Your task to perform on an android device: turn on the 24-hour format for clock Image 0: 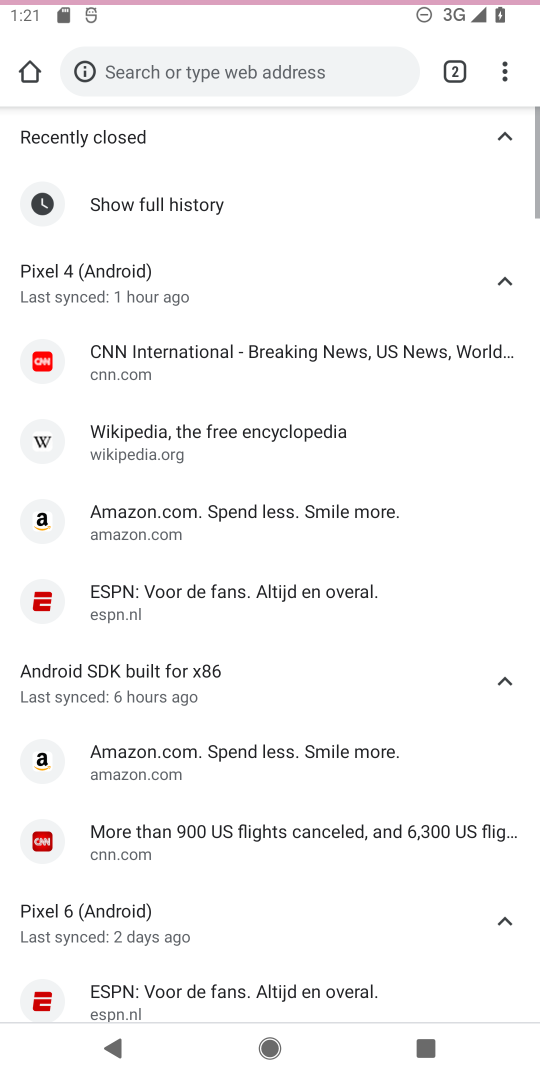
Step 0: press home button
Your task to perform on an android device: turn on the 24-hour format for clock Image 1: 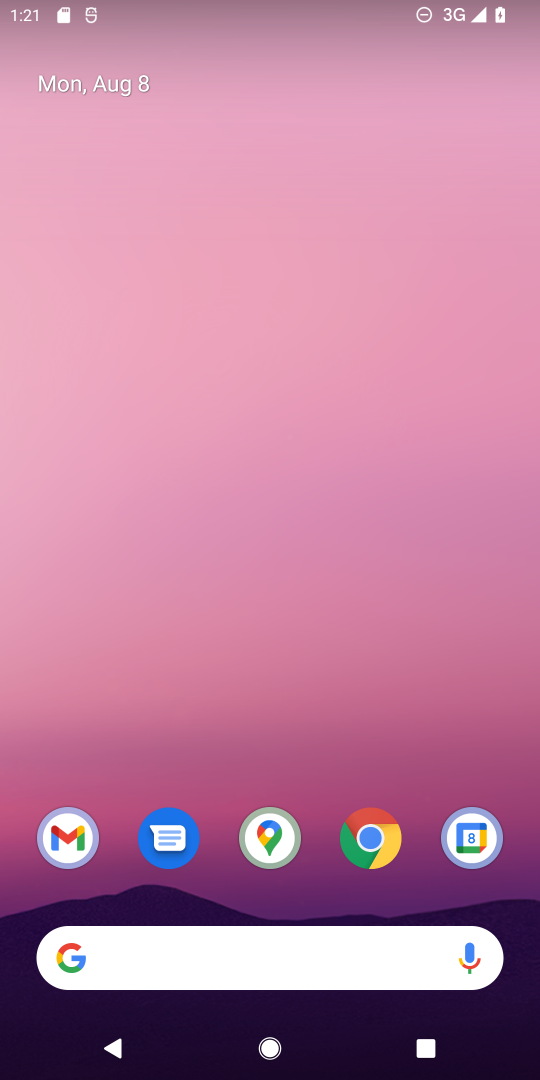
Step 1: drag from (199, 910) to (229, 176)
Your task to perform on an android device: turn on the 24-hour format for clock Image 2: 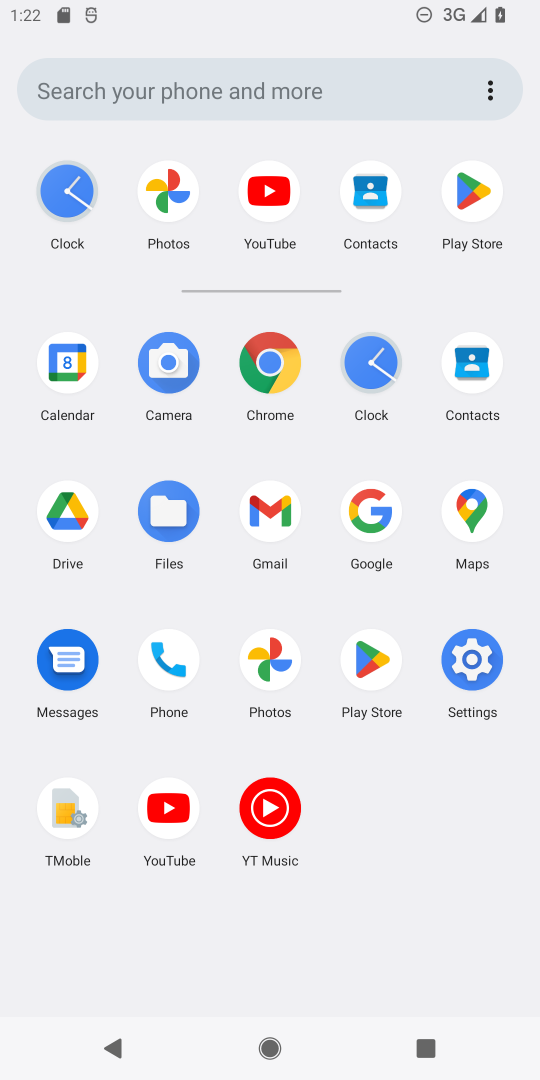
Step 2: click (478, 659)
Your task to perform on an android device: turn on the 24-hour format for clock Image 3: 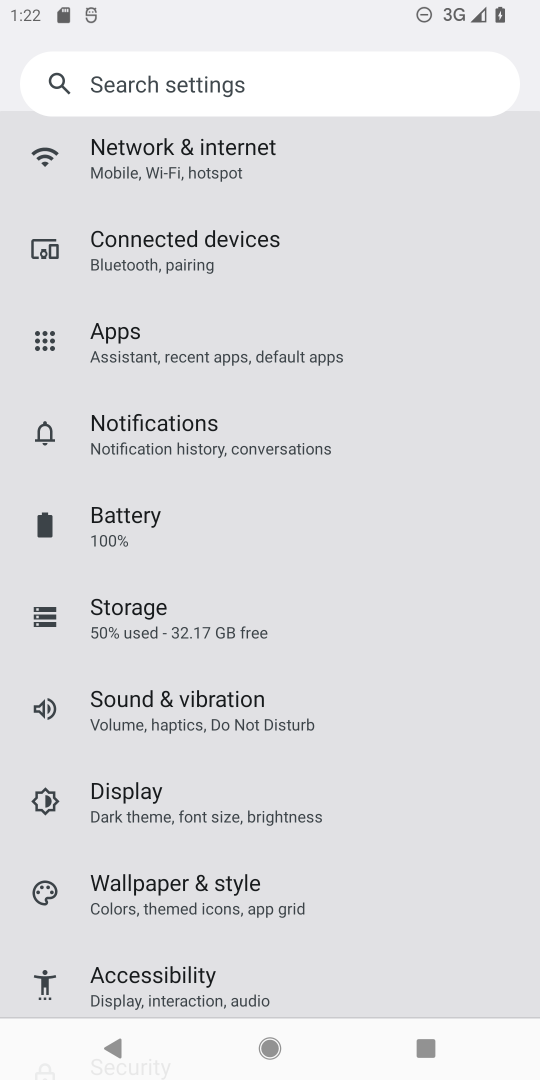
Step 3: drag from (346, 922) to (293, 138)
Your task to perform on an android device: turn on the 24-hour format for clock Image 4: 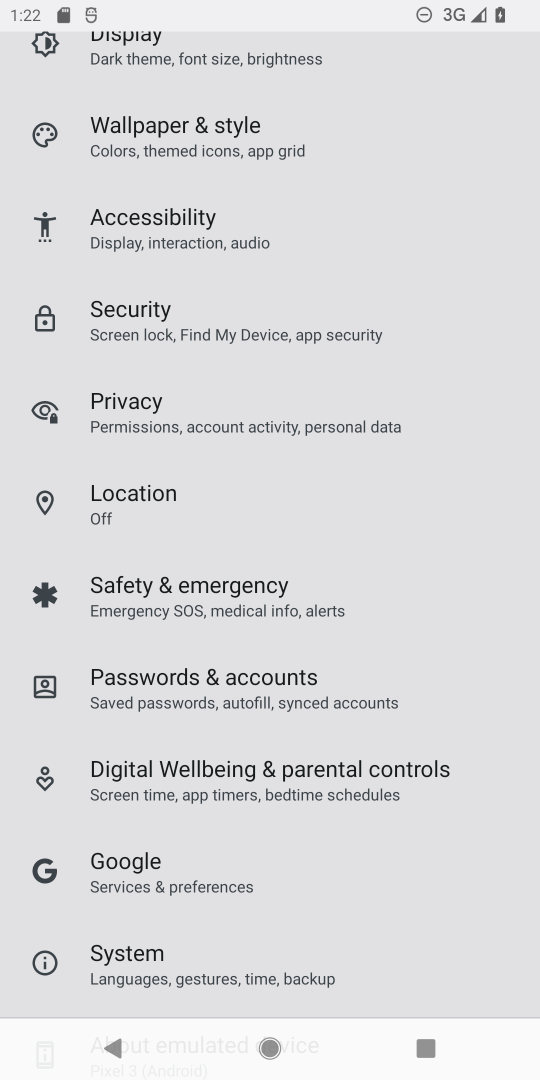
Step 4: click (142, 969)
Your task to perform on an android device: turn on the 24-hour format for clock Image 5: 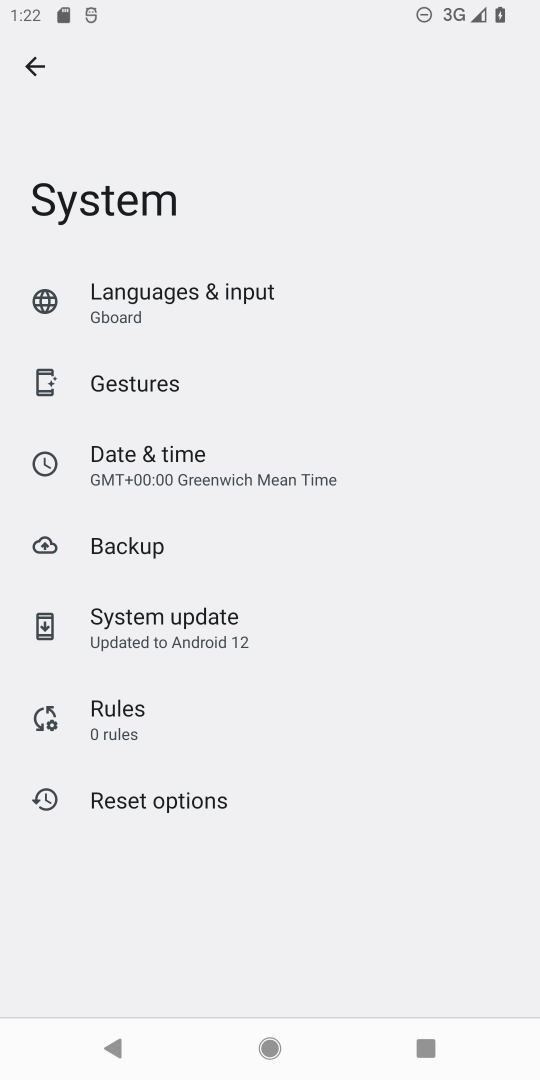
Step 5: click (128, 460)
Your task to perform on an android device: turn on the 24-hour format for clock Image 6: 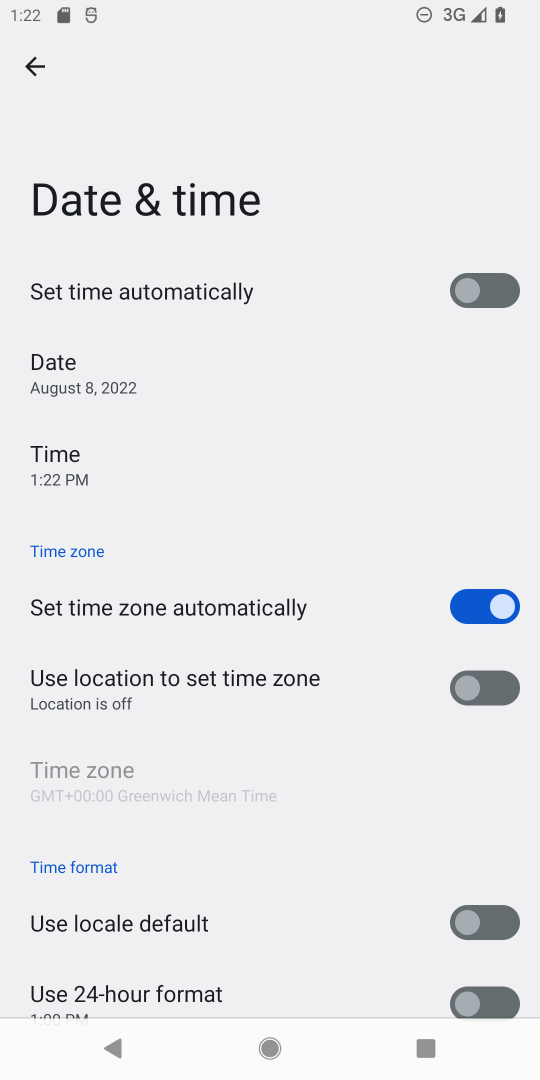
Step 6: drag from (361, 902) to (372, 386)
Your task to perform on an android device: turn on the 24-hour format for clock Image 7: 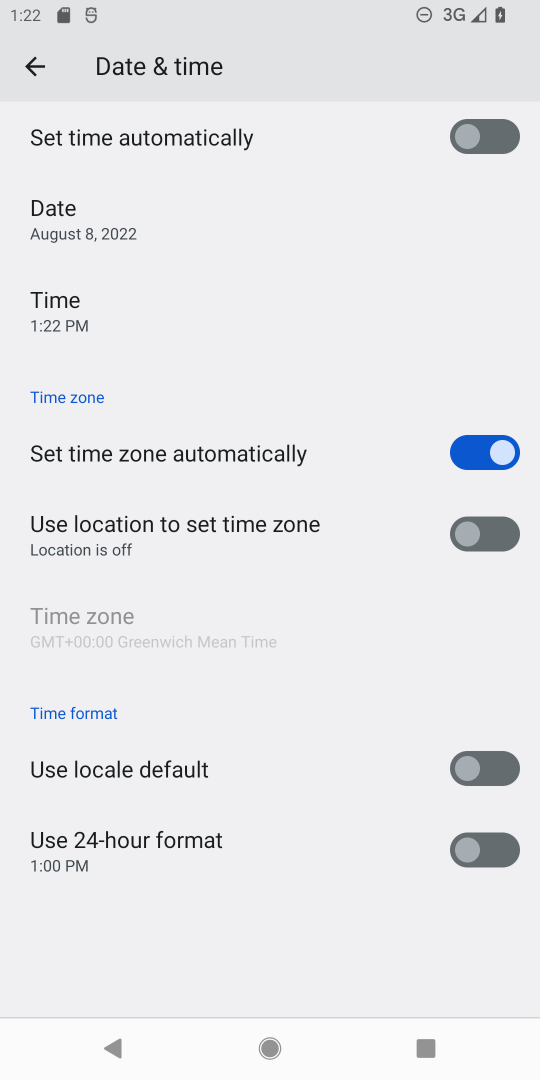
Step 7: click (465, 845)
Your task to perform on an android device: turn on the 24-hour format for clock Image 8: 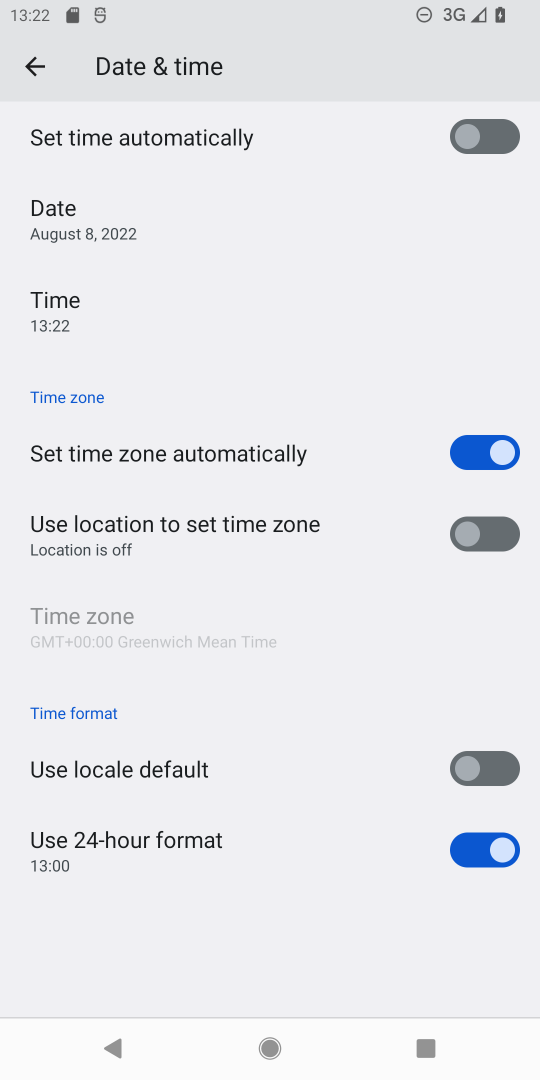
Step 8: task complete